Your task to perform on an android device: What's the weather going to be this weekend? Image 0: 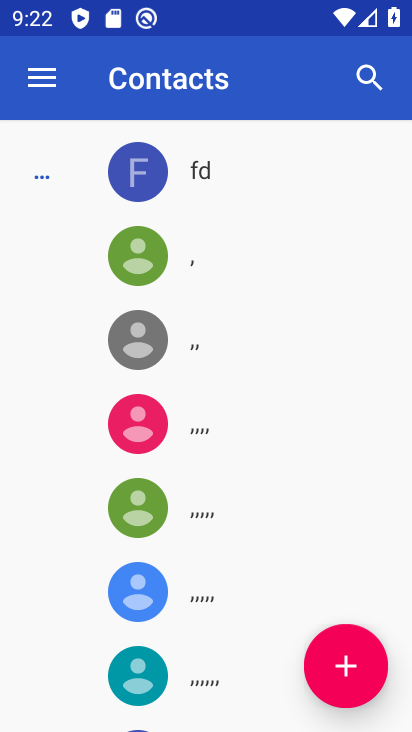
Step 0: press home button
Your task to perform on an android device: What's the weather going to be this weekend? Image 1: 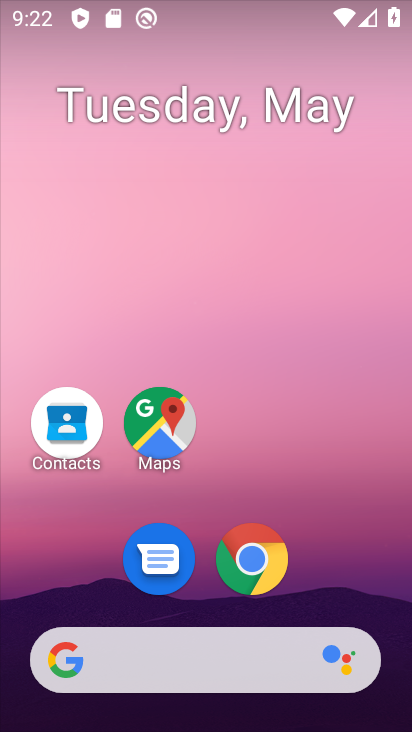
Step 1: drag from (368, 537) to (293, 110)
Your task to perform on an android device: What's the weather going to be this weekend? Image 2: 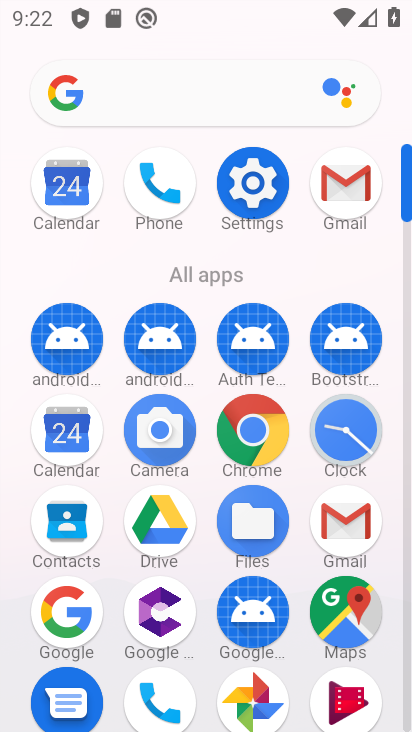
Step 2: click (72, 194)
Your task to perform on an android device: What's the weather going to be this weekend? Image 3: 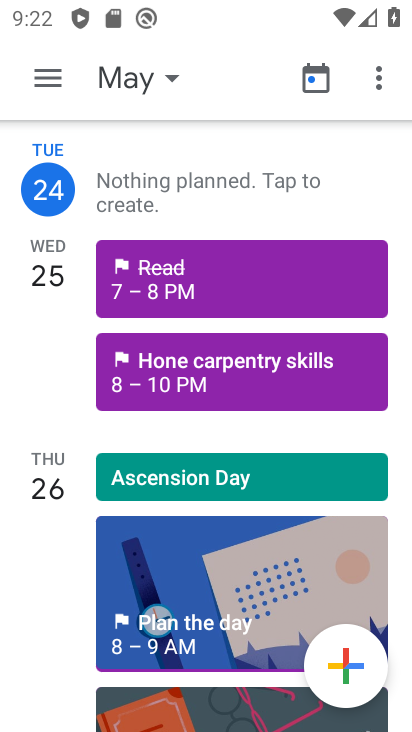
Step 3: task complete